Your task to perform on an android device: Go to Maps Image 0: 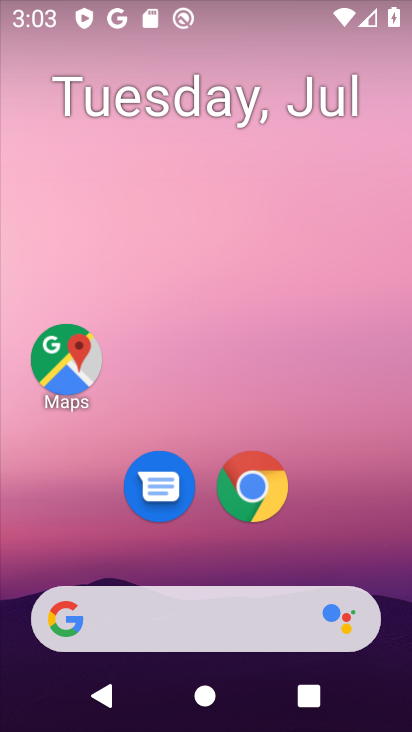
Step 0: click (66, 363)
Your task to perform on an android device: Go to Maps Image 1: 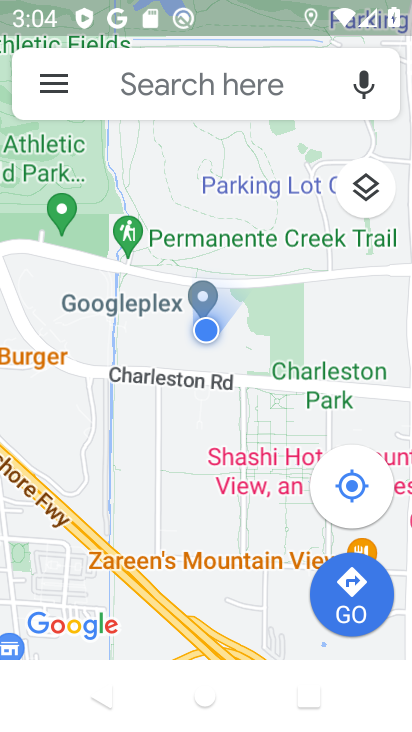
Step 1: task complete